Your task to perform on an android device: Open maps Image 0: 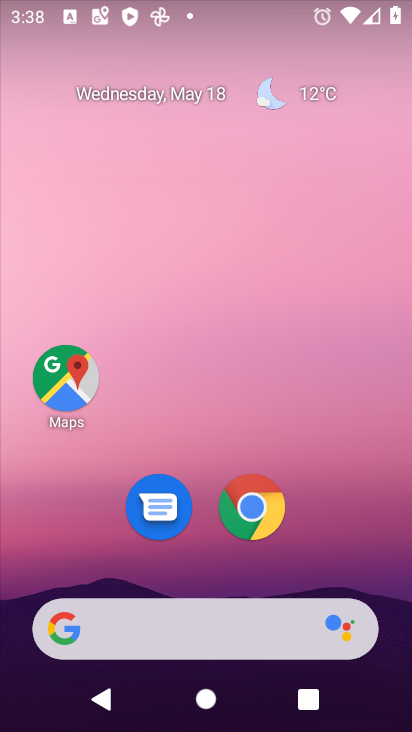
Step 0: click (65, 379)
Your task to perform on an android device: Open maps Image 1: 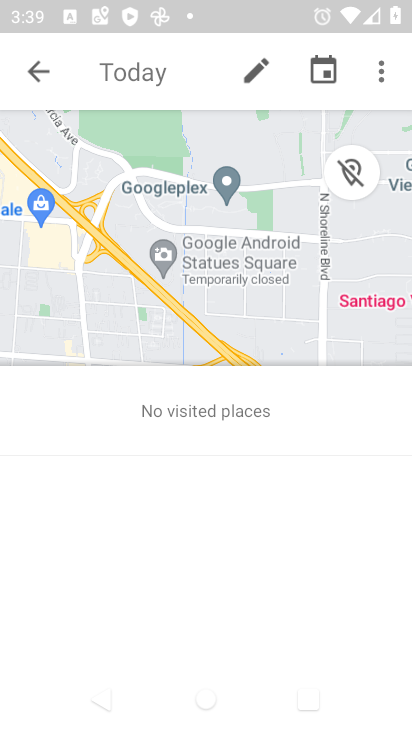
Step 1: task complete